Your task to perform on an android device: Open calendar and show me the first week of next month Image 0: 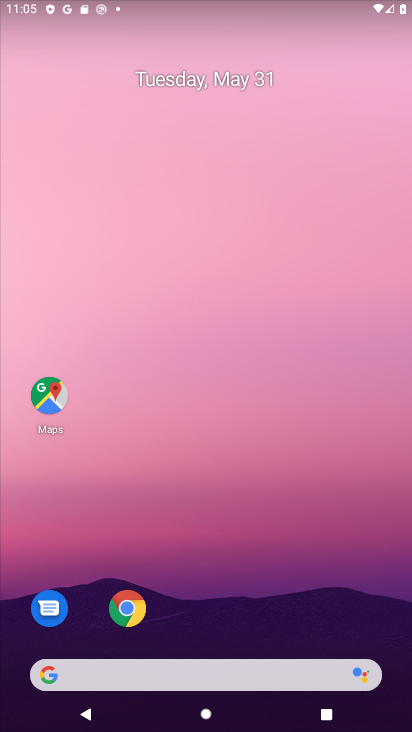
Step 0: drag from (293, 617) to (303, 72)
Your task to perform on an android device: Open calendar and show me the first week of next month Image 1: 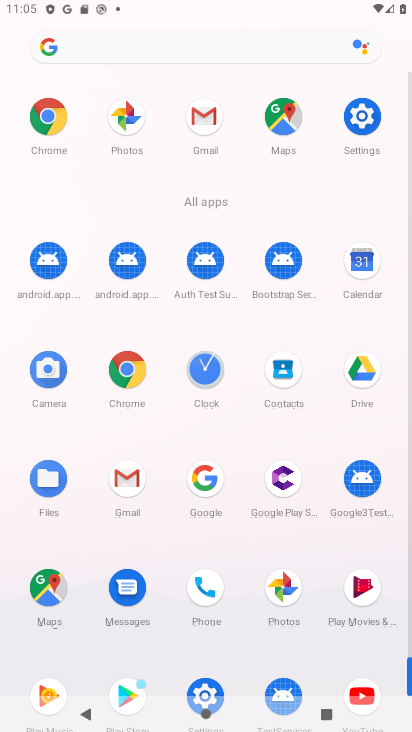
Step 1: click (356, 284)
Your task to perform on an android device: Open calendar and show me the first week of next month Image 2: 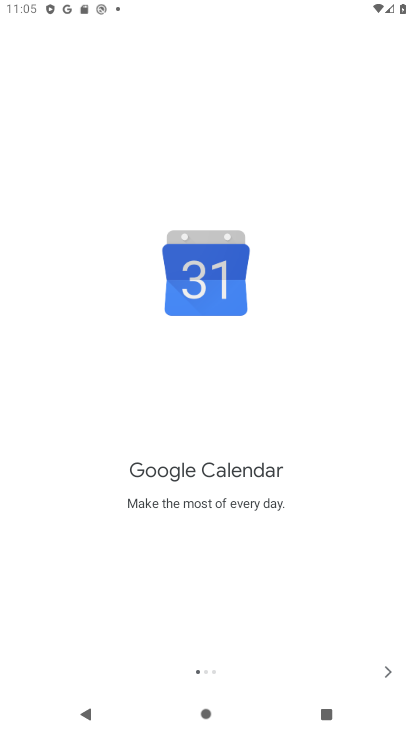
Step 2: click (386, 678)
Your task to perform on an android device: Open calendar and show me the first week of next month Image 3: 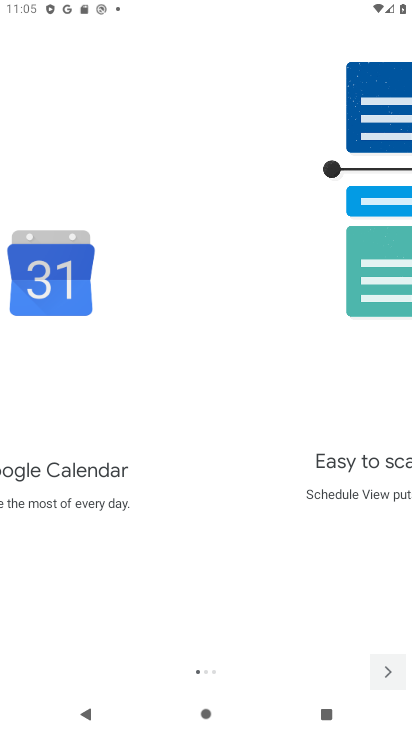
Step 3: click (383, 676)
Your task to perform on an android device: Open calendar and show me the first week of next month Image 4: 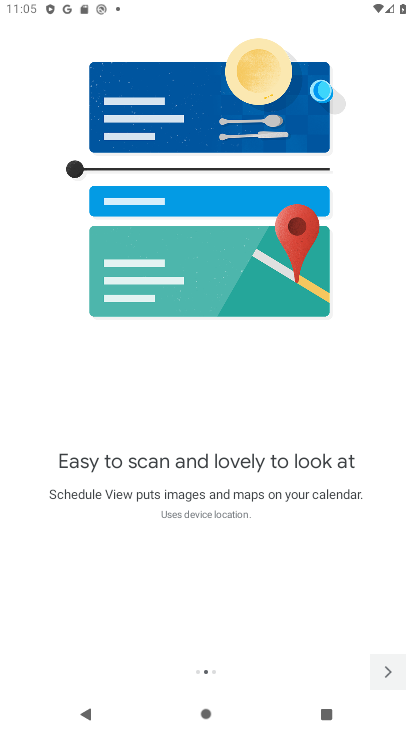
Step 4: click (383, 673)
Your task to perform on an android device: Open calendar and show me the first week of next month Image 5: 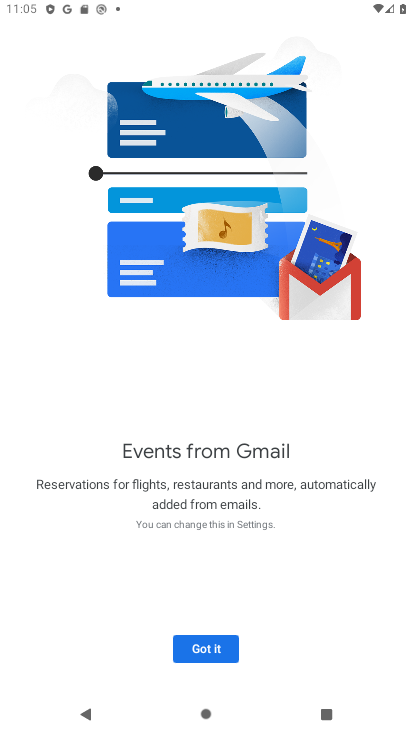
Step 5: click (183, 632)
Your task to perform on an android device: Open calendar and show me the first week of next month Image 6: 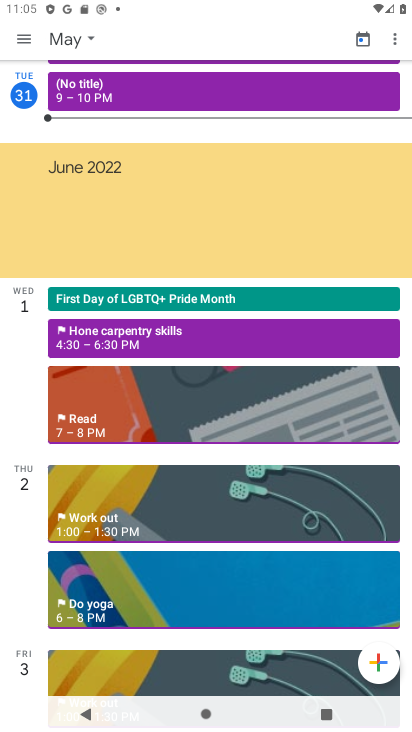
Step 6: click (80, 34)
Your task to perform on an android device: Open calendar and show me the first week of next month Image 7: 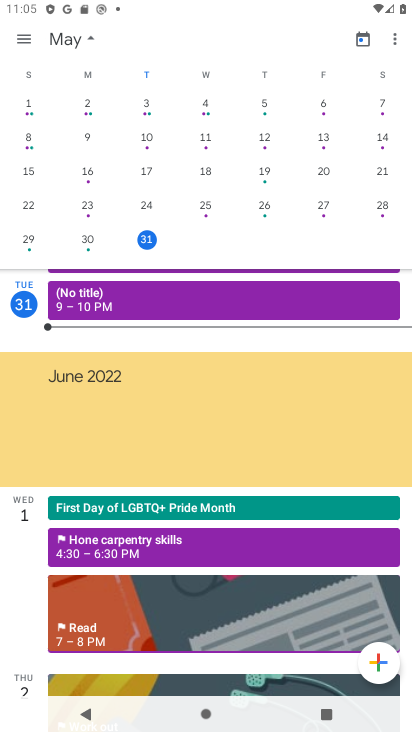
Step 7: drag from (364, 117) to (15, 152)
Your task to perform on an android device: Open calendar and show me the first week of next month Image 8: 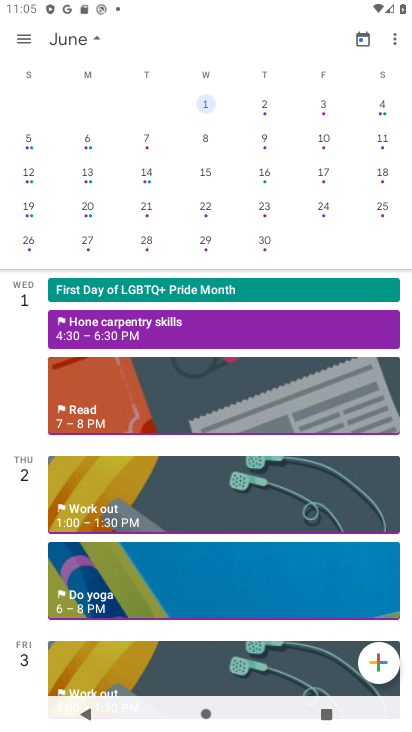
Step 8: drag from (309, 171) to (0, 186)
Your task to perform on an android device: Open calendar and show me the first week of next month Image 9: 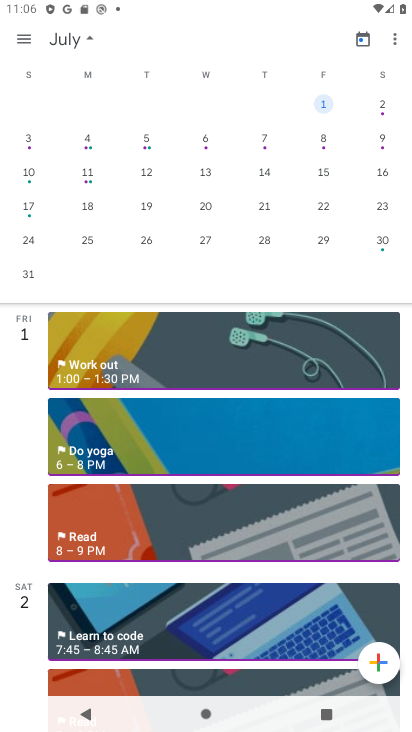
Step 9: click (322, 107)
Your task to perform on an android device: Open calendar and show me the first week of next month Image 10: 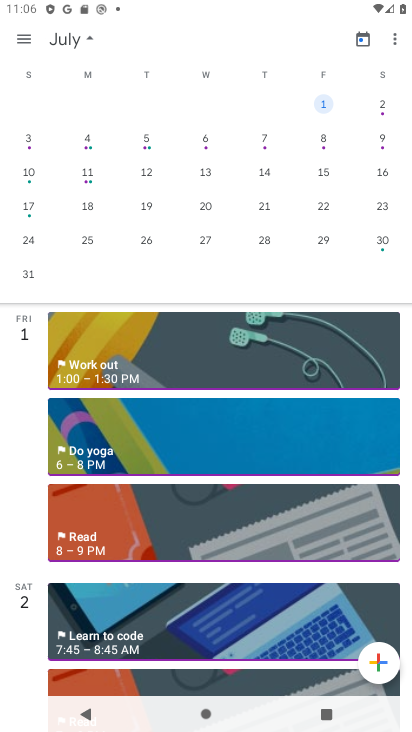
Step 10: task complete